Your task to perform on an android device: Set the phone to "Do not disturb". Image 0: 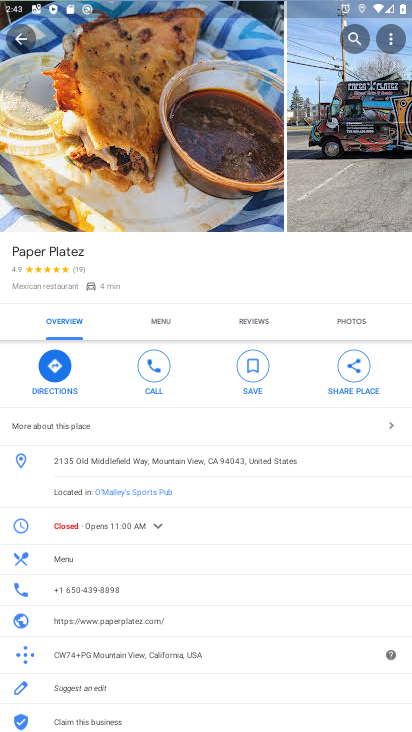
Step 0: press home button
Your task to perform on an android device: Set the phone to "Do not disturb". Image 1: 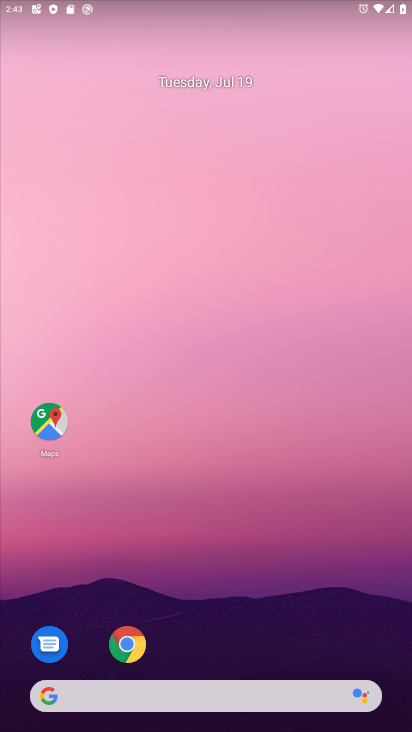
Step 1: drag from (369, 636) to (259, 210)
Your task to perform on an android device: Set the phone to "Do not disturb". Image 2: 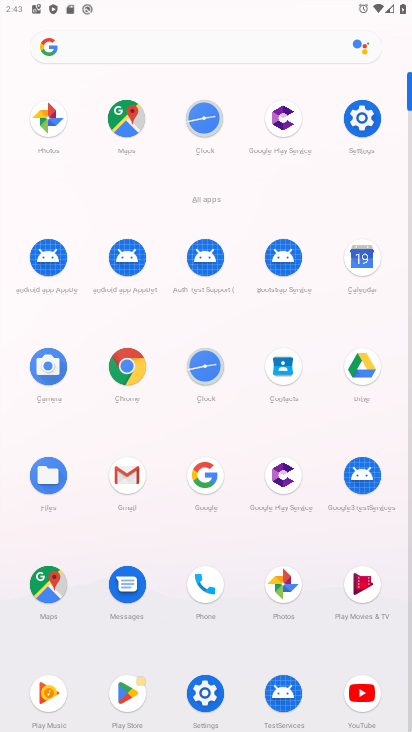
Step 2: click (367, 128)
Your task to perform on an android device: Set the phone to "Do not disturb". Image 3: 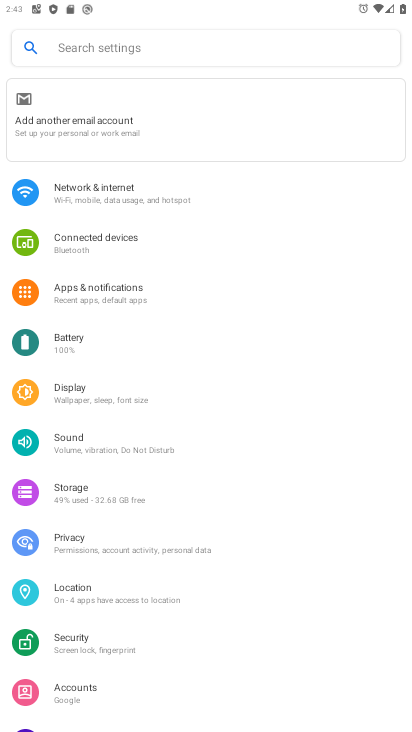
Step 3: click (106, 443)
Your task to perform on an android device: Set the phone to "Do not disturb". Image 4: 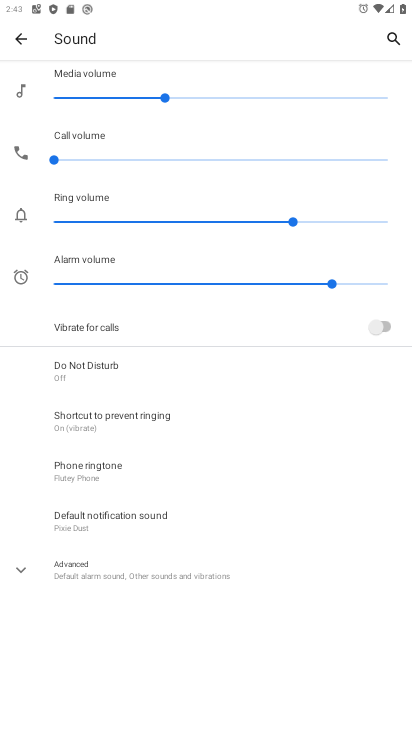
Step 4: click (115, 378)
Your task to perform on an android device: Set the phone to "Do not disturb". Image 5: 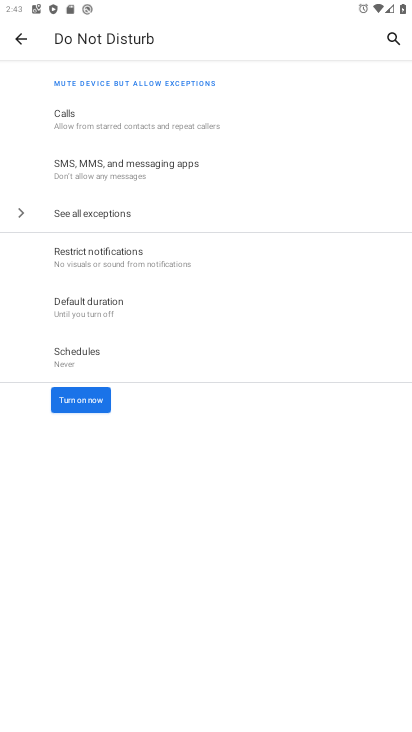
Step 5: click (93, 400)
Your task to perform on an android device: Set the phone to "Do not disturb". Image 6: 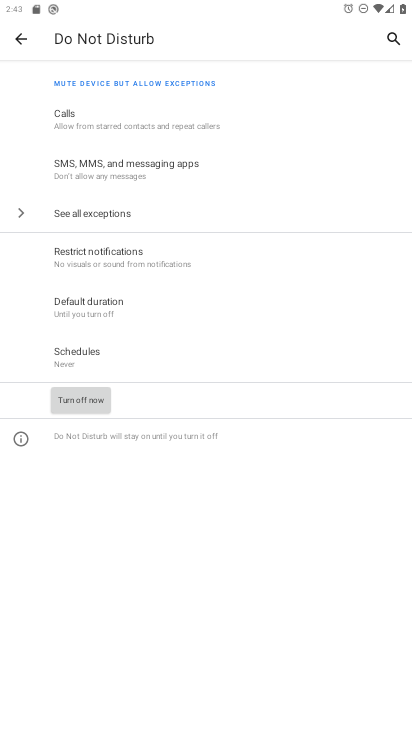
Step 6: task complete